Your task to perform on an android device: Go to Amazon Image 0: 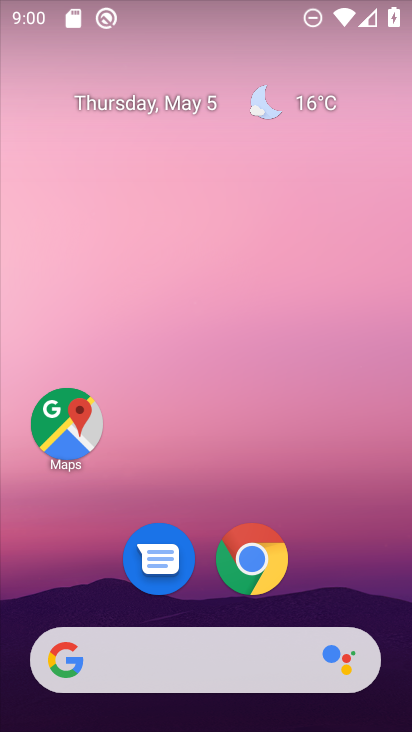
Step 0: click (257, 560)
Your task to perform on an android device: Go to Amazon Image 1: 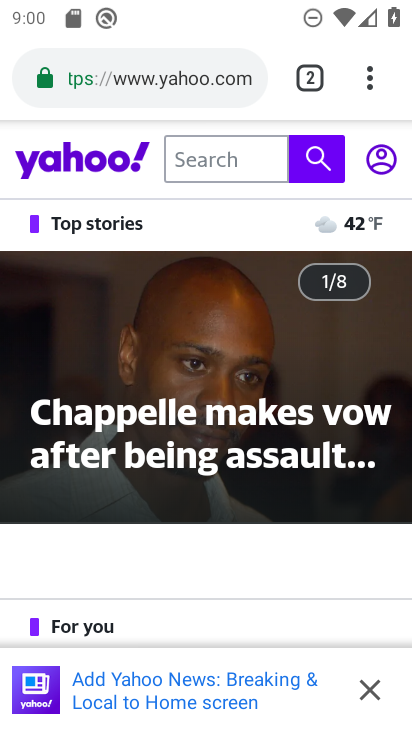
Step 1: click (162, 80)
Your task to perform on an android device: Go to Amazon Image 2: 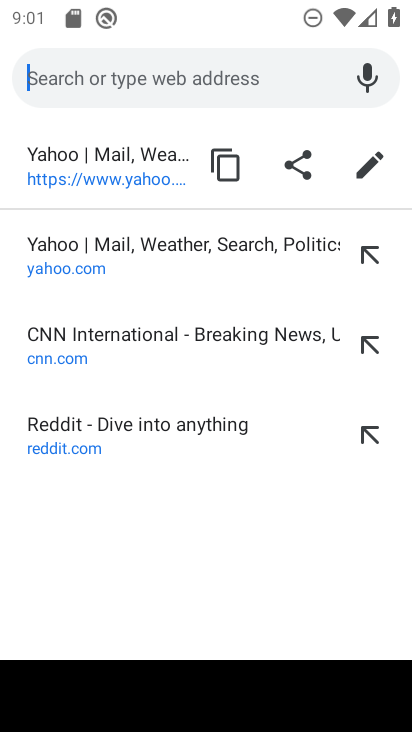
Step 2: type "amazon"
Your task to perform on an android device: Go to Amazon Image 3: 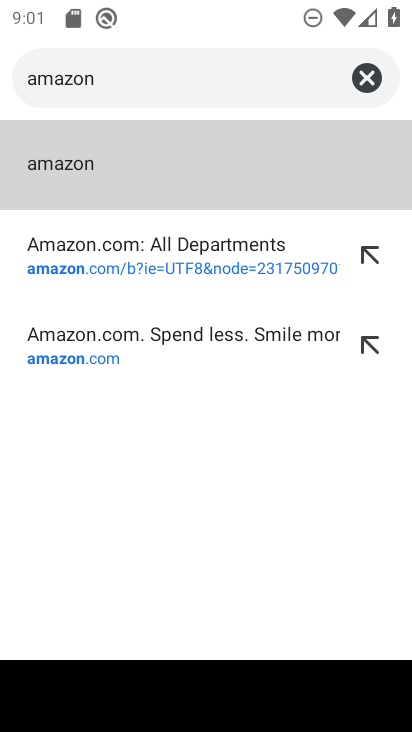
Step 3: click (102, 170)
Your task to perform on an android device: Go to Amazon Image 4: 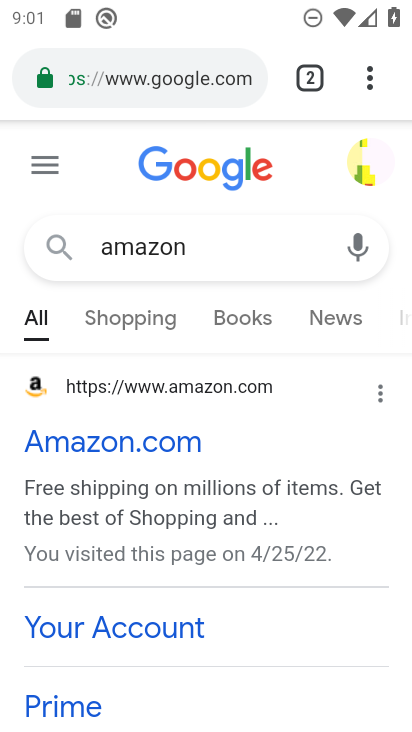
Step 4: click (69, 448)
Your task to perform on an android device: Go to Amazon Image 5: 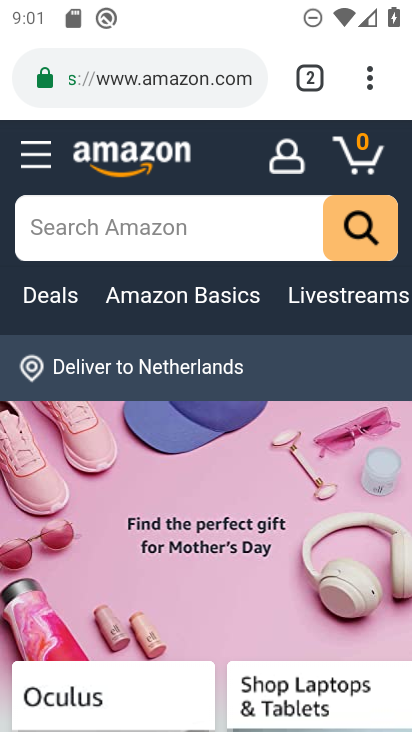
Step 5: task complete